Your task to perform on an android device: turn notification dots on Image 0: 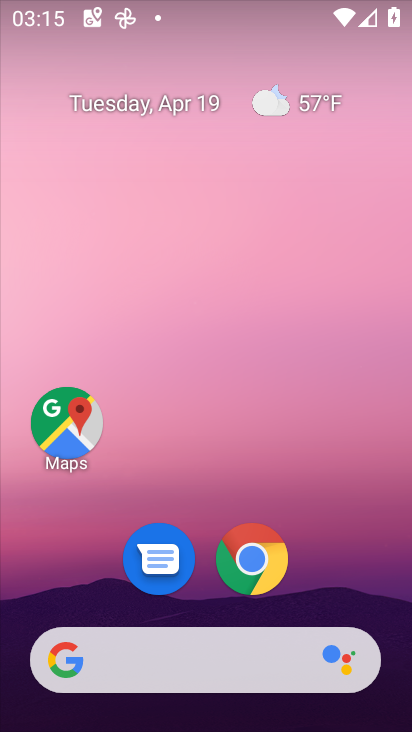
Step 0: drag from (208, 596) to (218, 84)
Your task to perform on an android device: turn notification dots on Image 1: 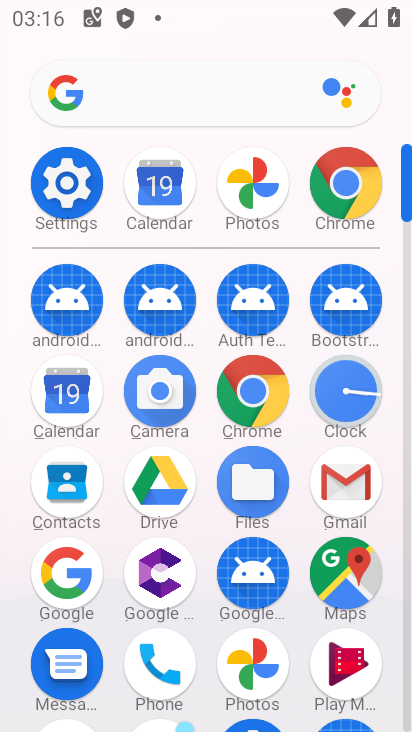
Step 1: click (69, 177)
Your task to perform on an android device: turn notification dots on Image 2: 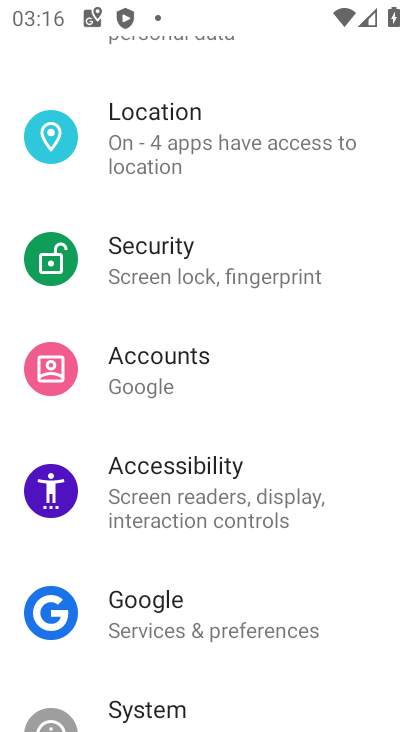
Step 2: drag from (191, 204) to (228, 547)
Your task to perform on an android device: turn notification dots on Image 3: 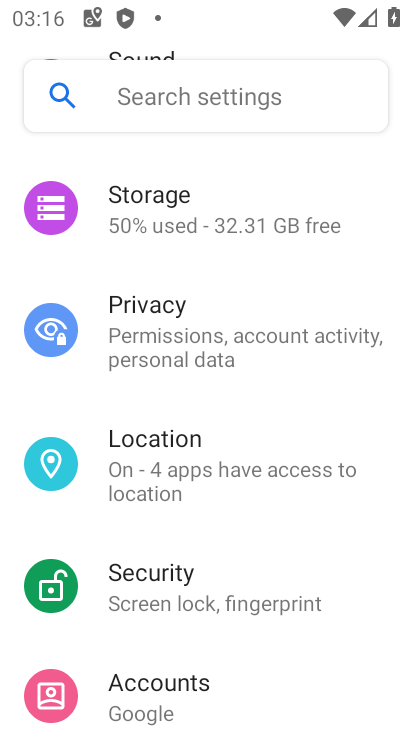
Step 3: drag from (199, 245) to (214, 669)
Your task to perform on an android device: turn notification dots on Image 4: 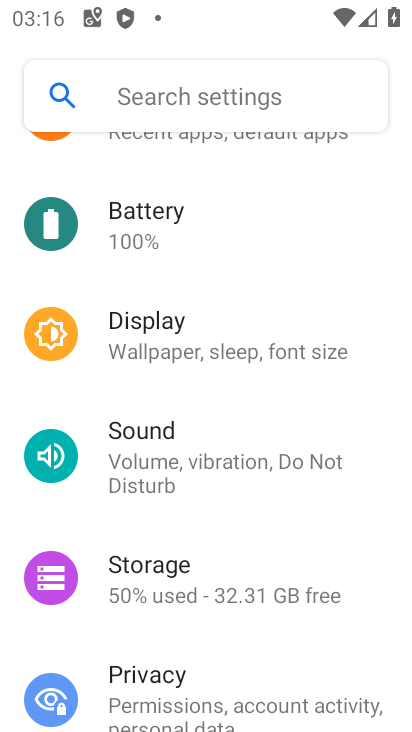
Step 4: drag from (211, 212) to (233, 683)
Your task to perform on an android device: turn notification dots on Image 5: 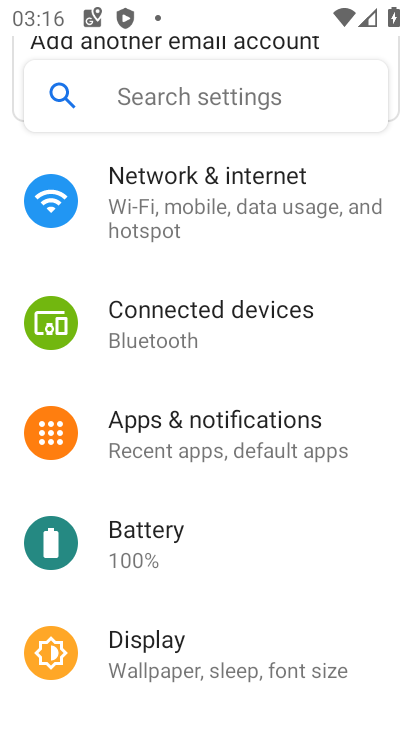
Step 5: click (231, 430)
Your task to perform on an android device: turn notification dots on Image 6: 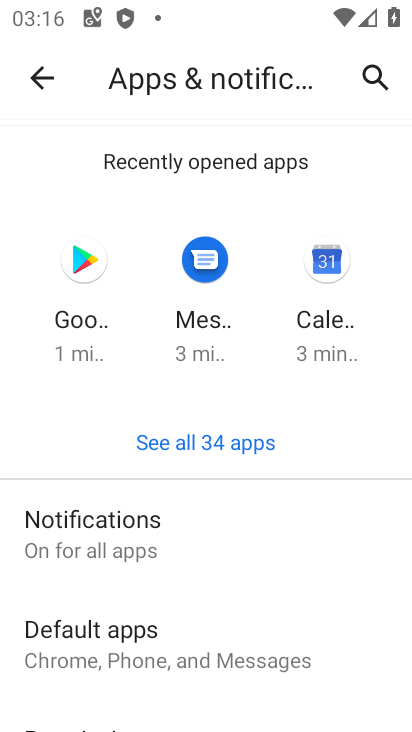
Step 6: click (194, 527)
Your task to perform on an android device: turn notification dots on Image 7: 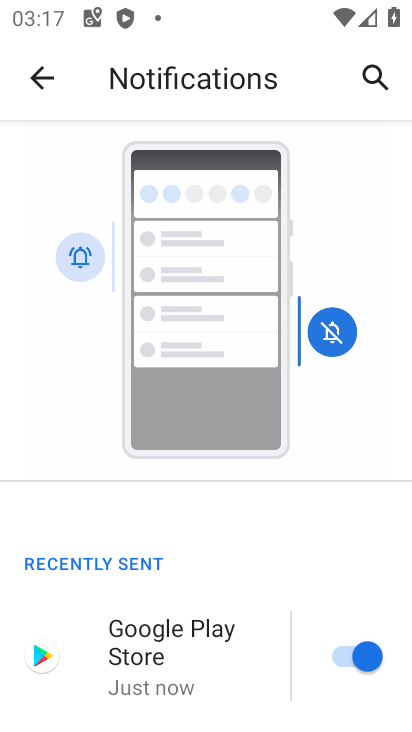
Step 7: drag from (235, 678) to (285, 106)
Your task to perform on an android device: turn notification dots on Image 8: 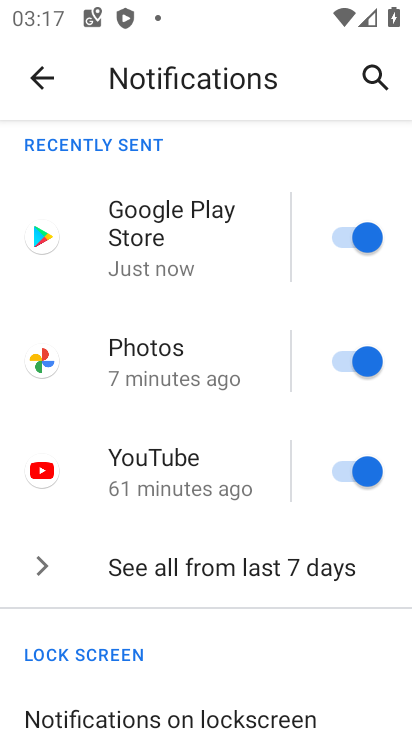
Step 8: drag from (219, 669) to (268, 95)
Your task to perform on an android device: turn notification dots on Image 9: 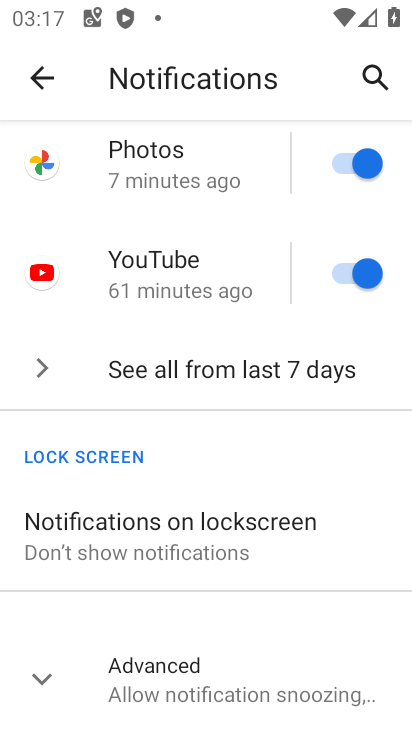
Step 9: click (48, 680)
Your task to perform on an android device: turn notification dots on Image 10: 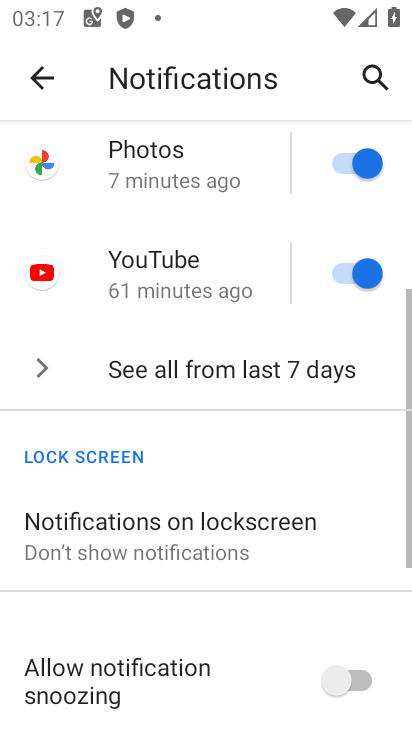
Step 10: task complete